Your task to perform on an android device: toggle improve location accuracy Image 0: 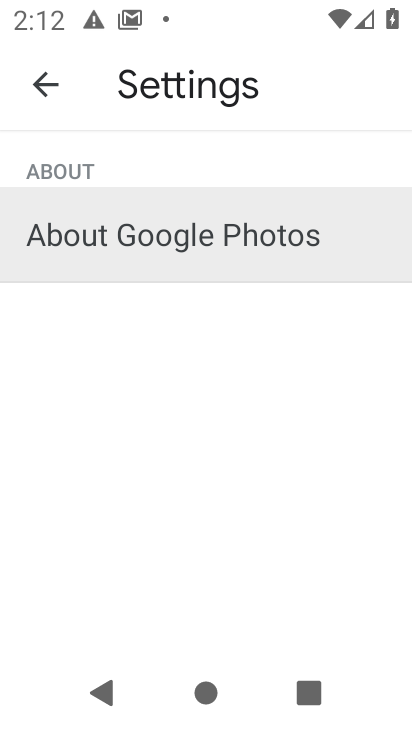
Step 0: press home button
Your task to perform on an android device: toggle improve location accuracy Image 1: 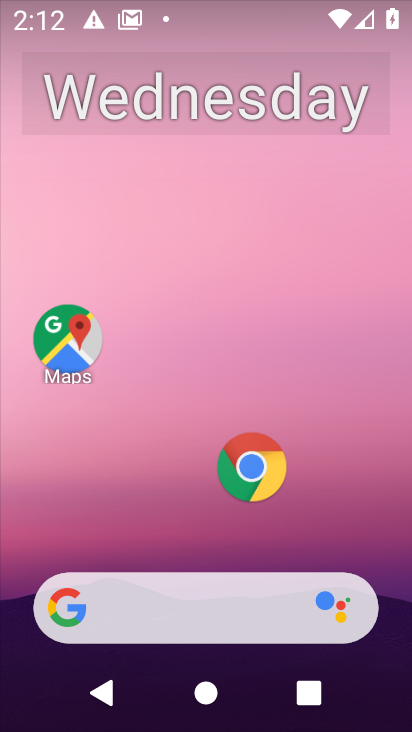
Step 1: drag from (178, 486) to (215, 209)
Your task to perform on an android device: toggle improve location accuracy Image 2: 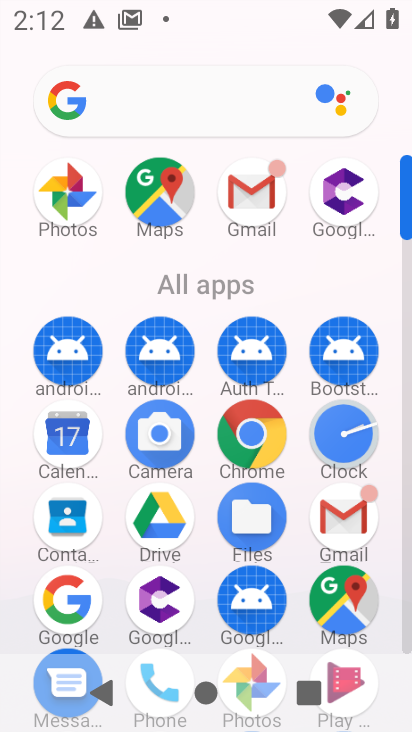
Step 2: click (254, 190)
Your task to perform on an android device: toggle improve location accuracy Image 3: 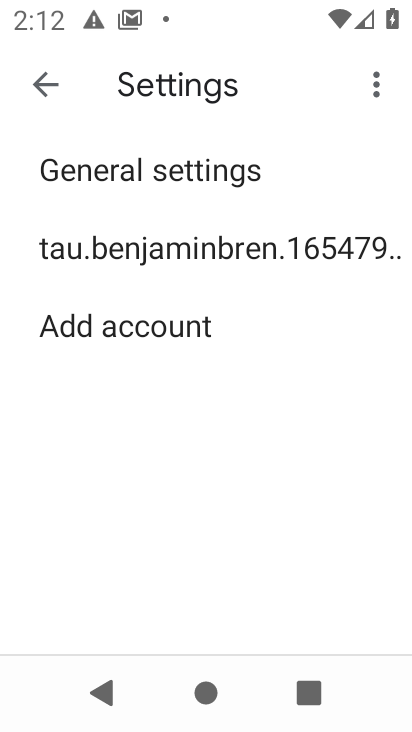
Step 3: task complete